Your task to perform on an android device: check out phone information Image 0: 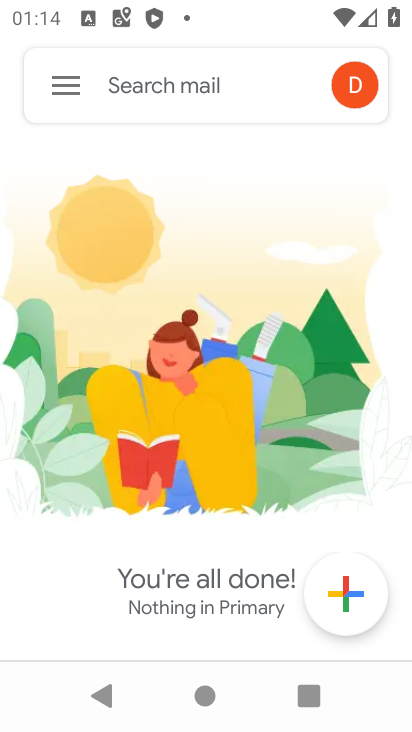
Step 0: press home button
Your task to perform on an android device: check out phone information Image 1: 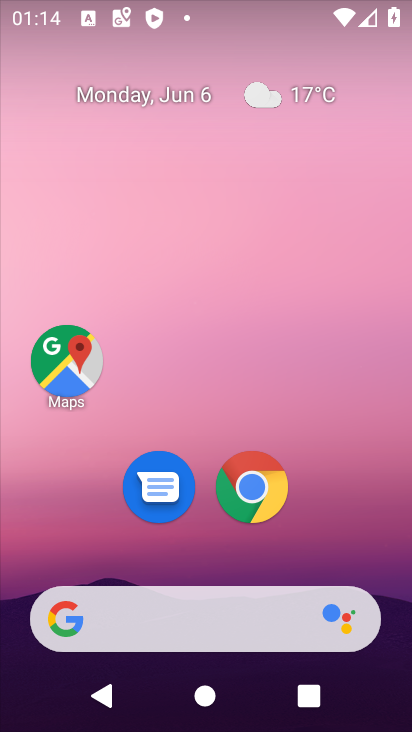
Step 1: drag from (391, 610) to (322, 32)
Your task to perform on an android device: check out phone information Image 2: 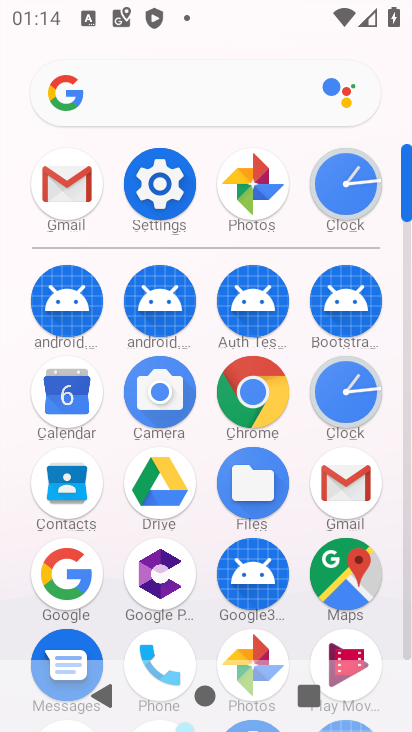
Step 2: click (405, 645)
Your task to perform on an android device: check out phone information Image 3: 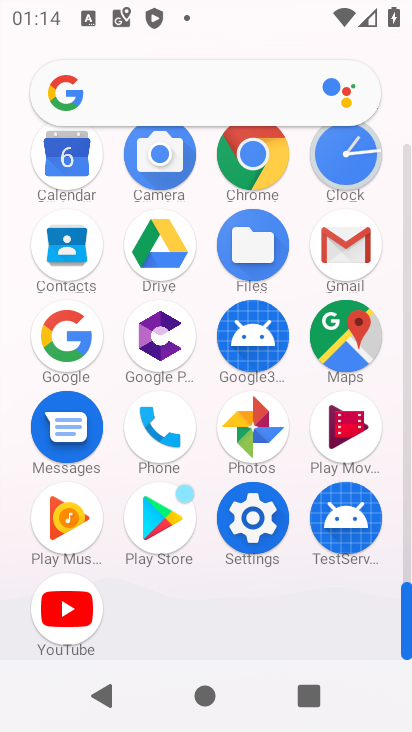
Step 3: click (253, 514)
Your task to perform on an android device: check out phone information Image 4: 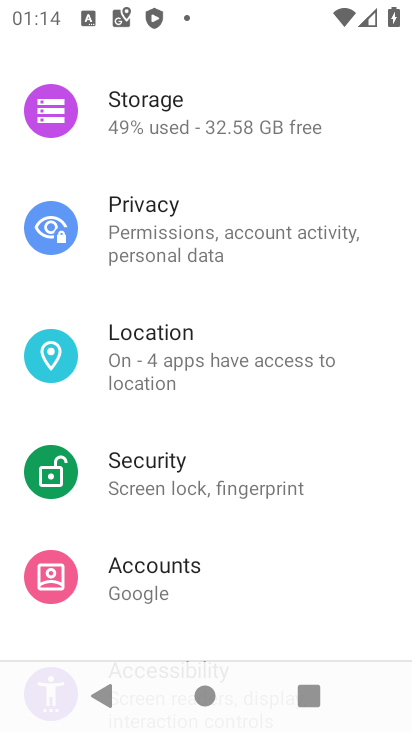
Step 4: drag from (311, 586) to (275, 65)
Your task to perform on an android device: check out phone information Image 5: 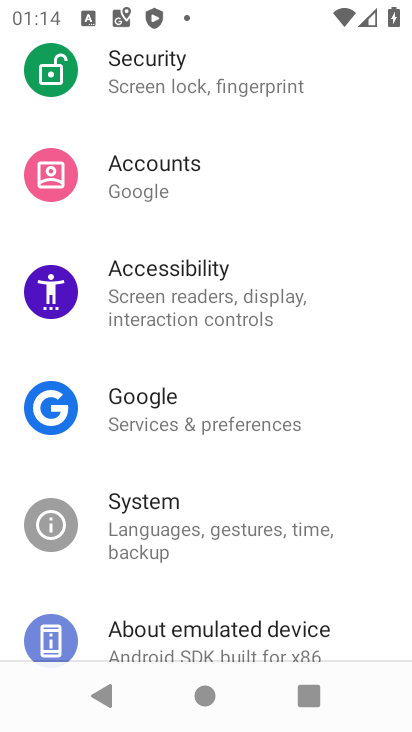
Step 5: click (181, 619)
Your task to perform on an android device: check out phone information Image 6: 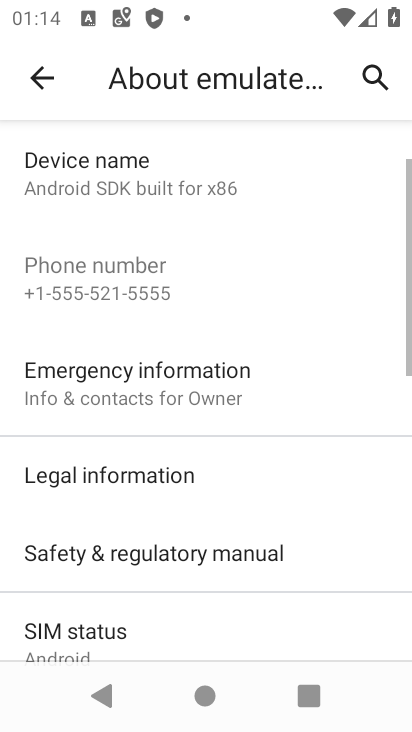
Step 6: task complete